Your task to perform on an android device: Open Chrome and go to the settings page Image 0: 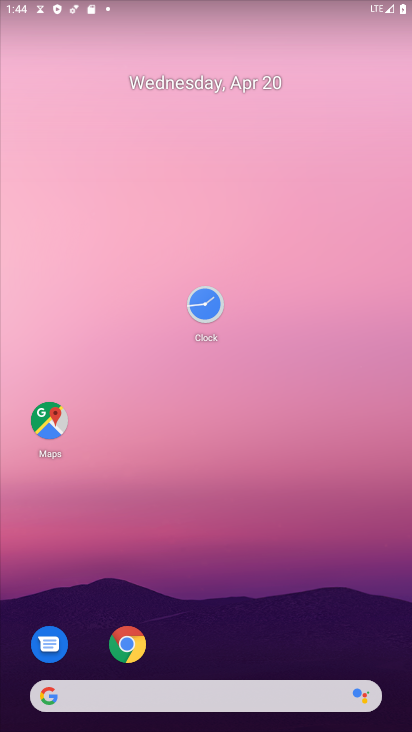
Step 0: drag from (309, 625) to (282, 44)
Your task to perform on an android device: Open Chrome and go to the settings page Image 1: 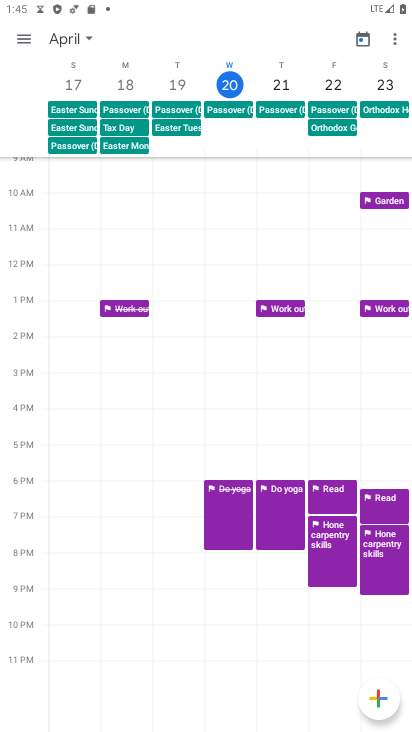
Step 1: press home button
Your task to perform on an android device: Open Chrome and go to the settings page Image 2: 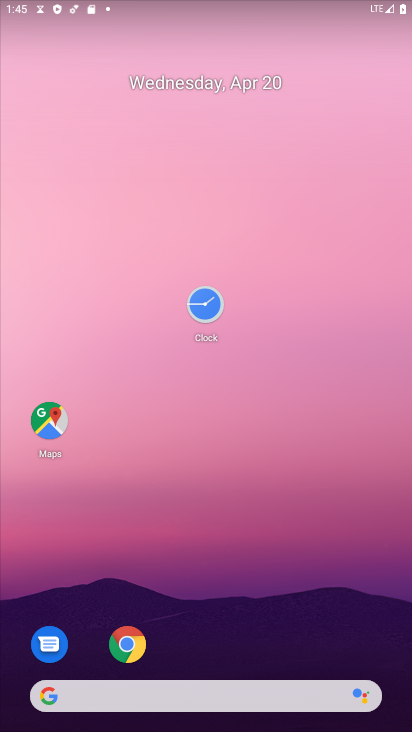
Step 2: drag from (224, 639) to (209, 93)
Your task to perform on an android device: Open Chrome and go to the settings page Image 3: 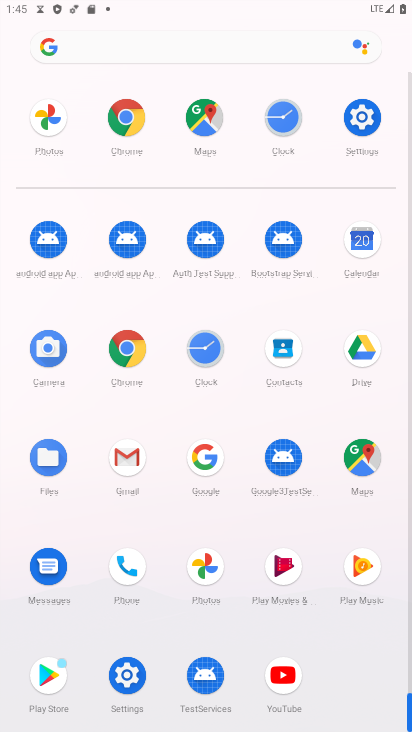
Step 3: click (120, 364)
Your task to perform on an android device: Open Chrome and go to the settings page Image 4: 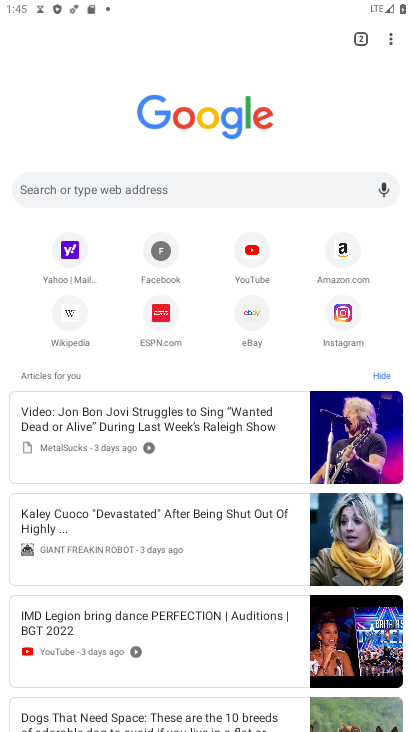
Step 4: click (381, 37)
Your task to perform on an android device: Open Chrome and go to the settings page Image 5: 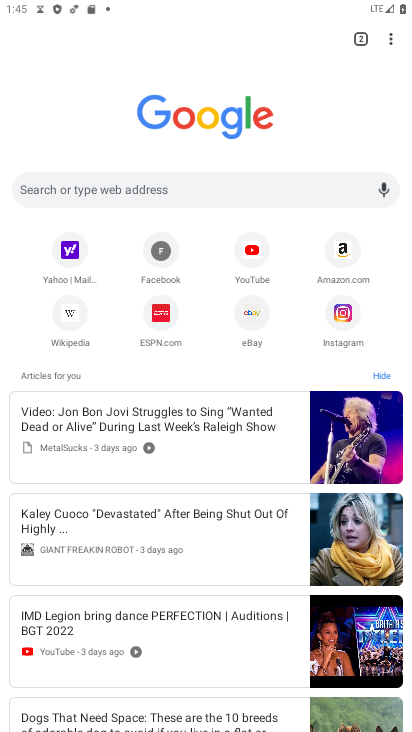
Step 5: click (385, 33)
Your task to perform on an android device: Open Chrome and go to the settings page Image 6: 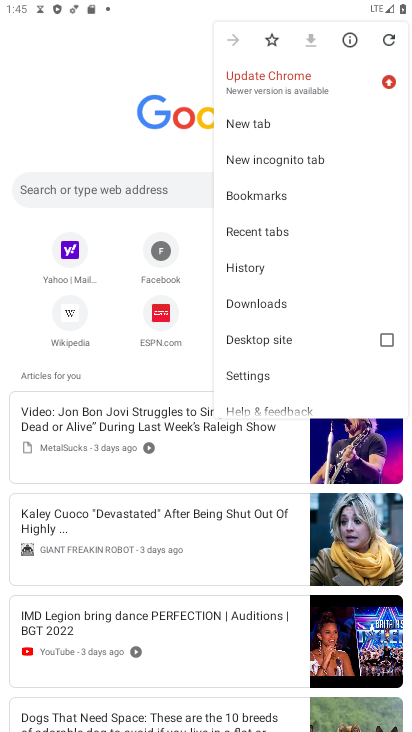
Step 6: click (275, 372)
Your task to perform on an android device: Open Chrome and go to the settings page Image 7: 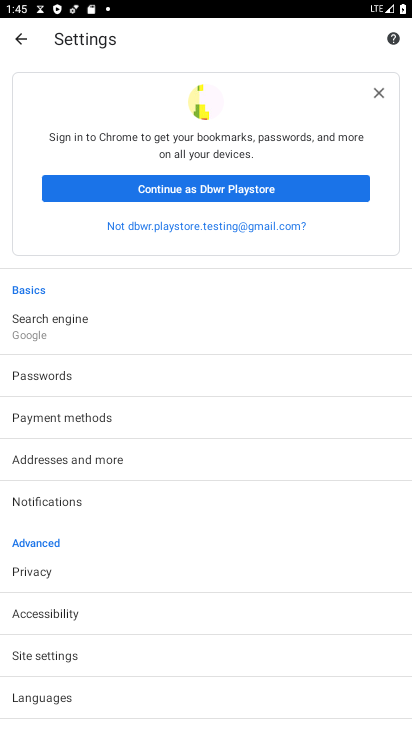
Step 7: task complete